Your task to perform on an android device: turn off notifications settings in the gmail app Image 0: 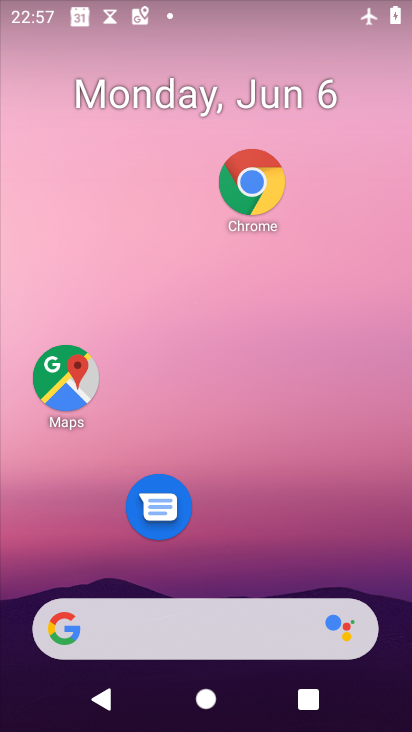
Step 0: drag from (296, 540) to (324, 143)
Your task to perform on an android device: turn off notifications settings in the gmail app Image 1: 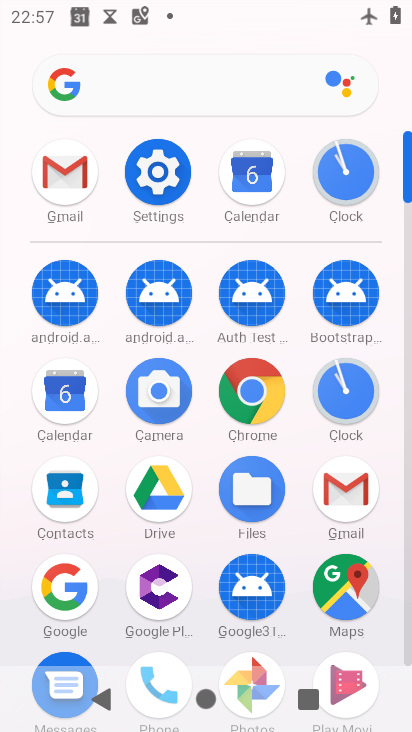
Step 1: click (352, 495)
Your task to perform on an android device: turn off notifications settings in the gmail app Image 2: 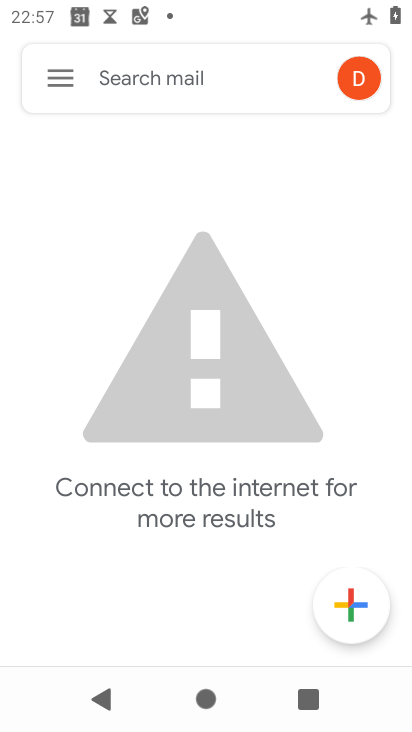
Step 2: click (50, 70)
Your task to perform on an android device: turn off notifications settings in the gmail app Image 3: 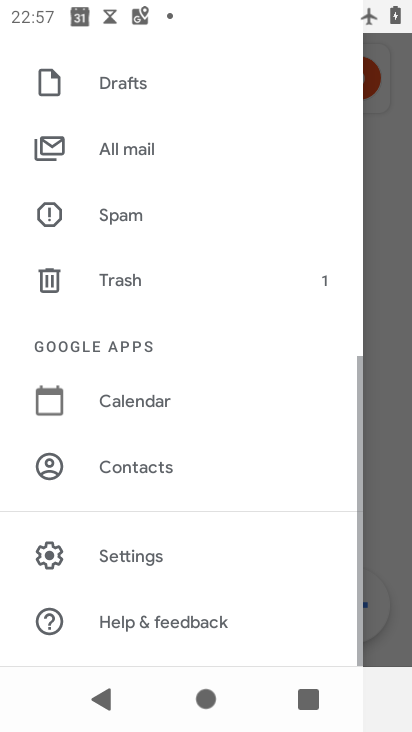
Step 3: click (150, 566)
Your task to perform on an android device: turn off notifications settings in the gmail app Image 4: 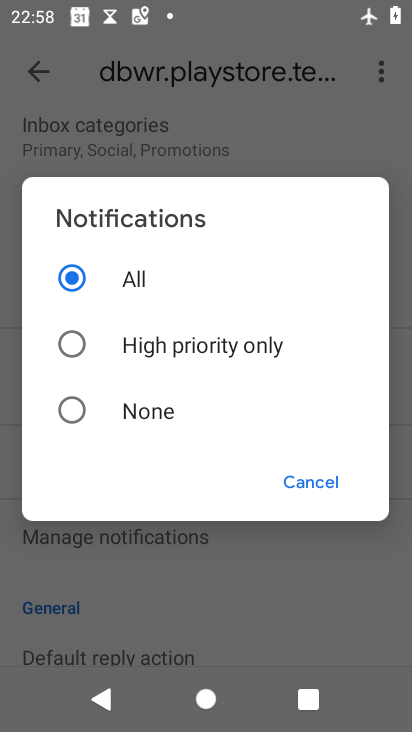
Step 4: click (131, 410)
Your task to perform on an android device: turn off notifications settings in the gmail app Image 5: 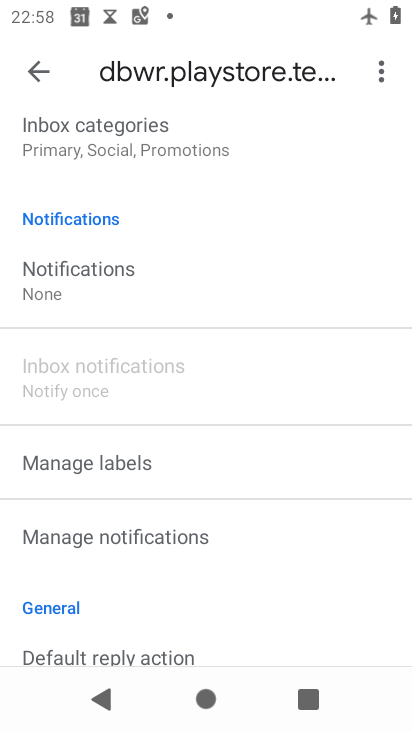
Step 5: task complete